Your task to perform on an android device: turn off data saver in the chrome app Image 0: 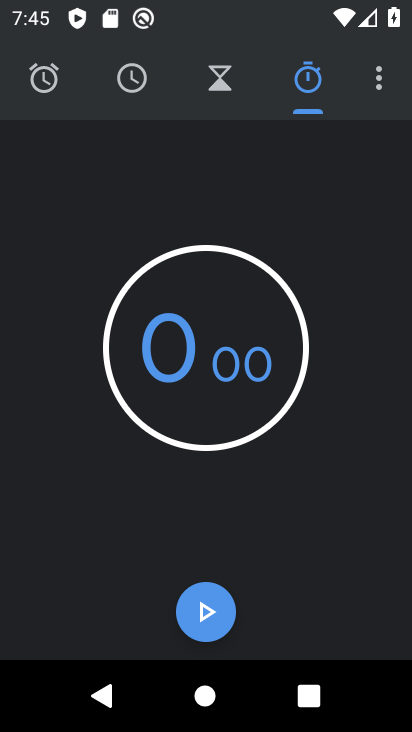
Step 0: press home button
Your task to perform on an android device: turn off data saver in the chrome app Image 1: 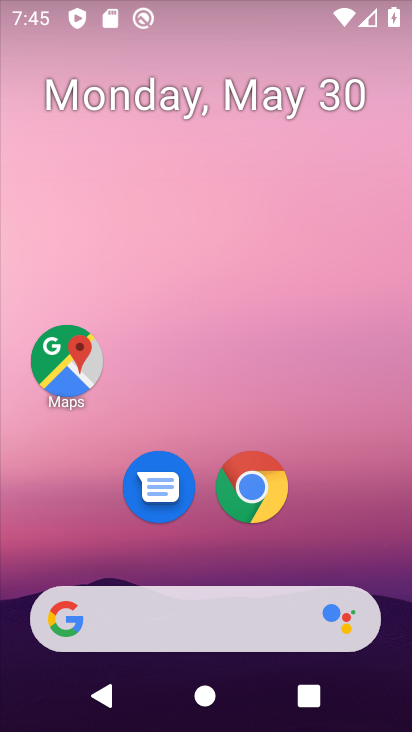
Step 1: drag from (252, 583) to (209, 253)
Your task to perform on an android device: turn off data saver in the chrome app Image 2: 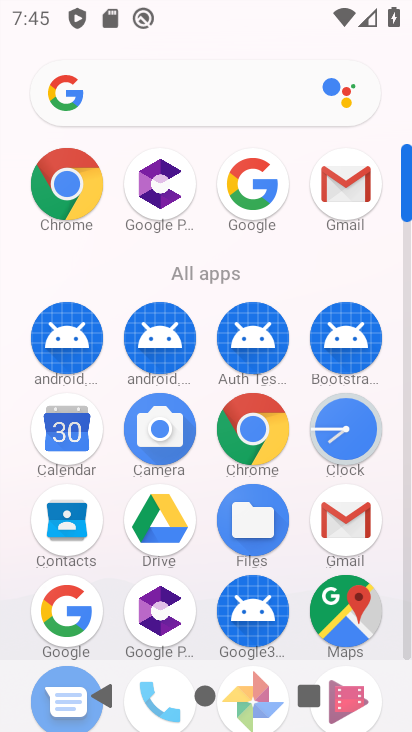
Step 2: click (62, 168)
Your task to perform on an android device: turn off data saver in the chrome app Image 3: 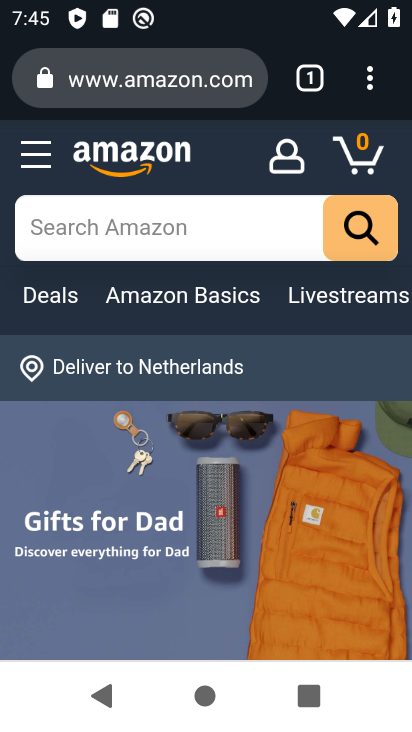
Step 3: click (369, 79)
Your task to perform on an android device: turn off data saver in the chrome app Image 4: 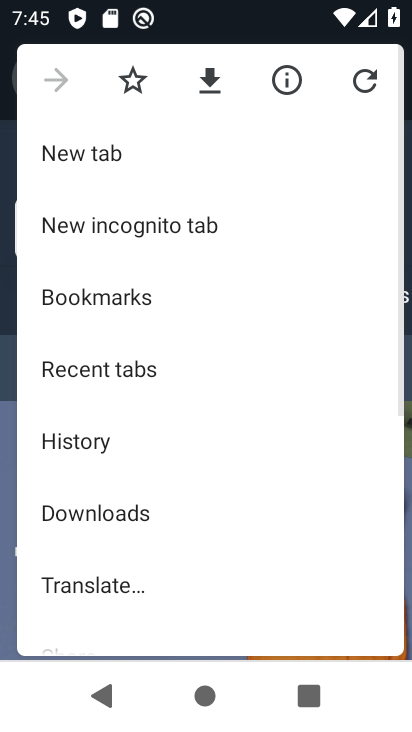
Step 4: drag from (200, 540) to (204, 250)
Your task to perform on an android device: turn off data saver in the chrome app Image 5: 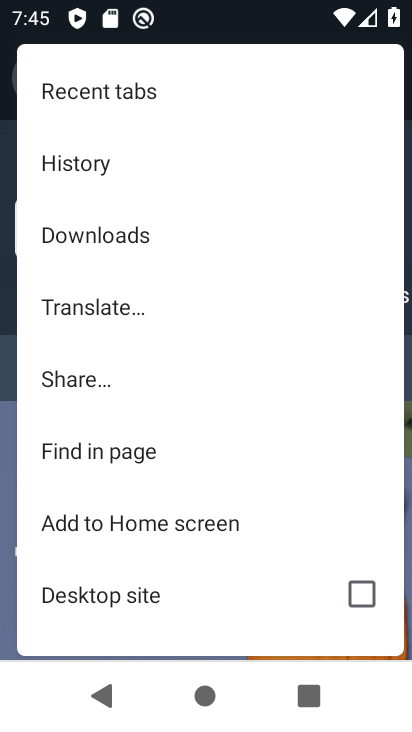
Step 5: drag from (162, 567) to (192, 254)
Your task to perform on an android device: turn off data saver in the chrome app Image 6: 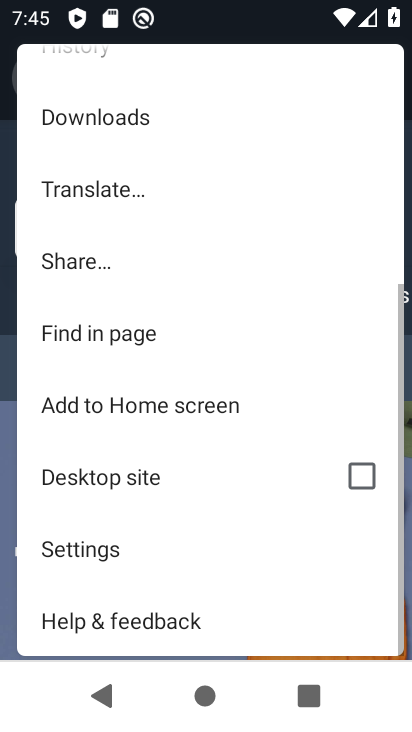
Step 6: click (124, 552)
Your task to perform on an android device: turn off data saver in the chrome app Image 7: 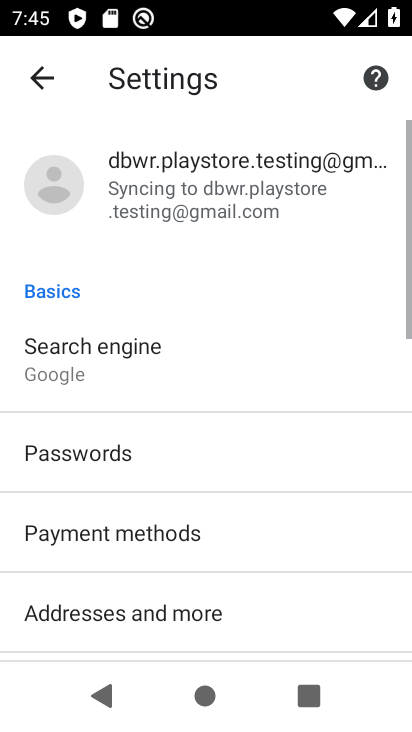
Step 7: drag from (200, 516) to (217, 216)
Your task to perform on an android device: turn off data saver in the chrome app Image 8: 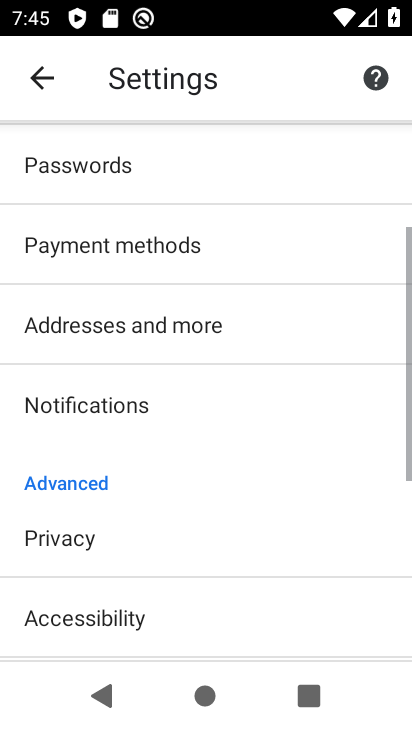
Step 8: drag from (169, 324) to (176, 258)
Your task to perform on an android device: turn off data saver in the chrome app Image 9: 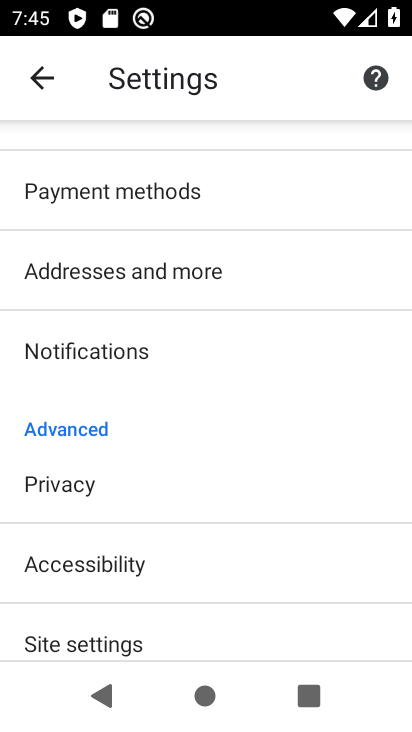
Step 9: drag from (218, 574) to (197, 281)
Your task to perform on an android device: turn off data saver in the chrome app Image 10: 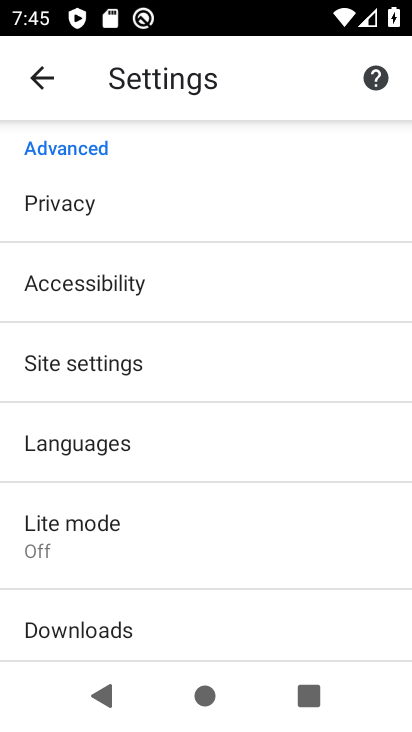
Step 10: click (114, 356)
Your task to perform on an android device: turn off data saver in the chrome app Image 11: 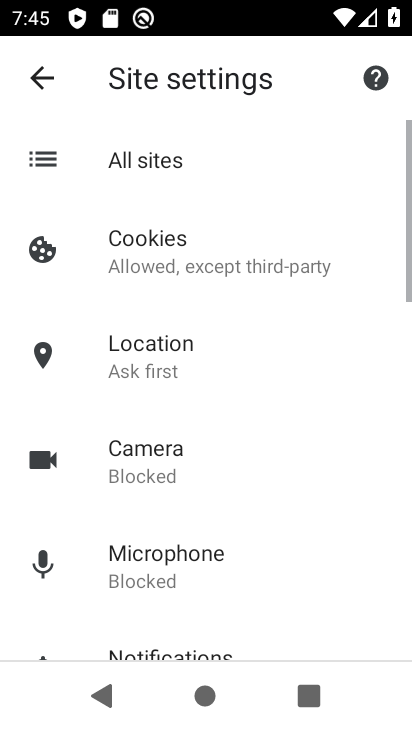
Step 11: click (31, 77)
Your task to perform on an android device: turn off data saver in the chrome app Image 12: 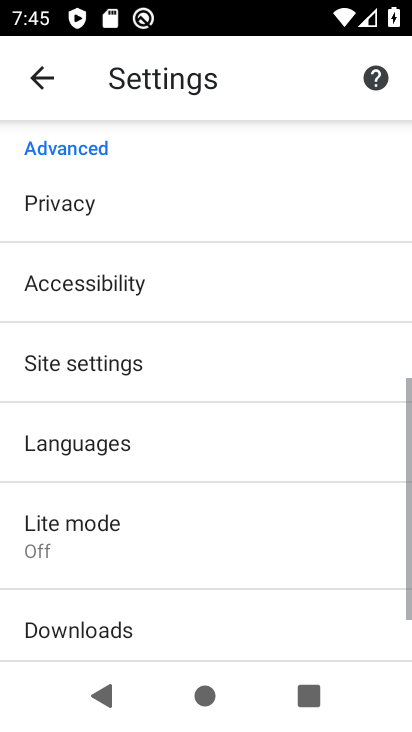
Step 12: click (165, 548)
Your task to perform on an android device: turn off data saver in the chrome app Image 13: 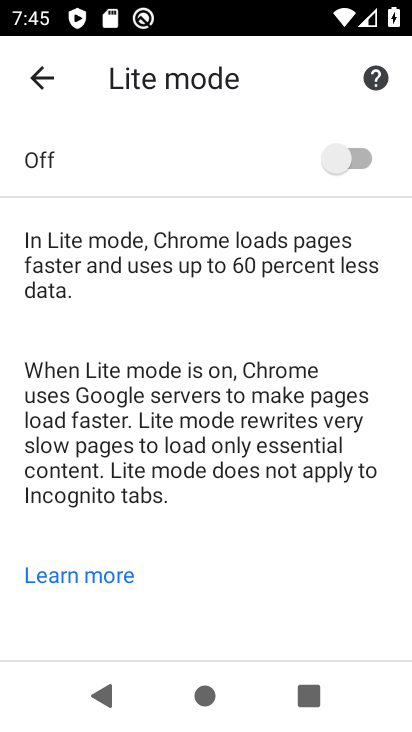
Step 13: task complete